Your task to perform on an android device: Open calendar and show me the fourth week of next month Image 0: 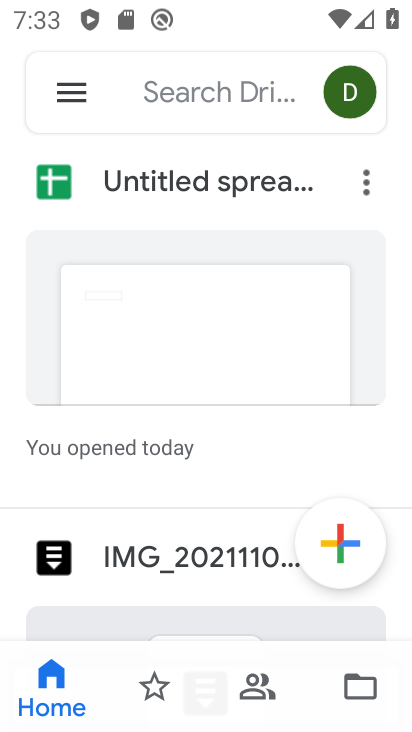
Step 0: press home button
Your task to perform on an android device: Open calendar and show me the fourth week of next month Image 1: 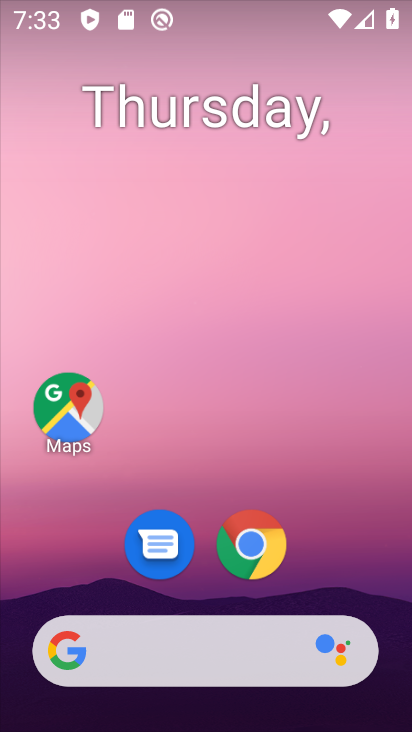
Step 1: drag from (340, 592) to (245, 160)
Your task to perform on an android device: Open calendar and show me the fourth week of next month Image 2: 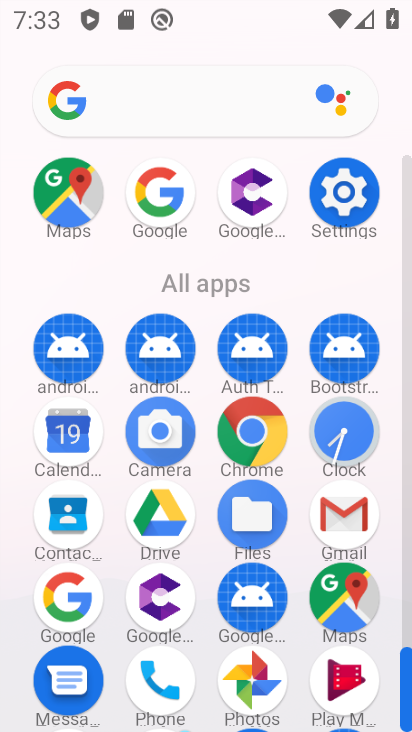
Step 2: click (66, 430)
Your task to perform on an android device: Open calendar and show me the fourth week of next month Image 3: 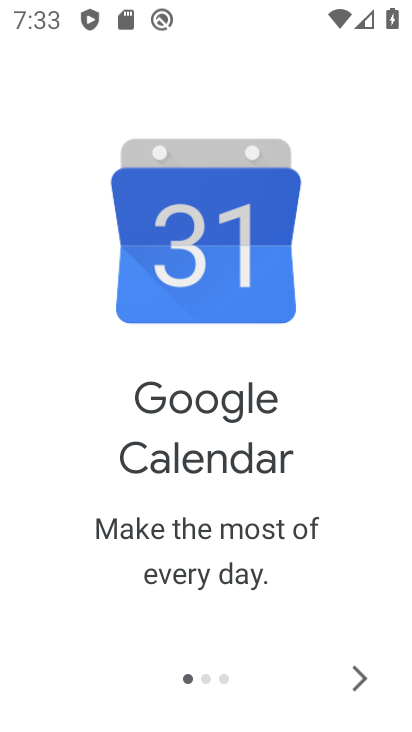
Step 3: click (366, 676)
Your task to perform on an android device: Open calendar and show me the fourth week of next month Image 4: 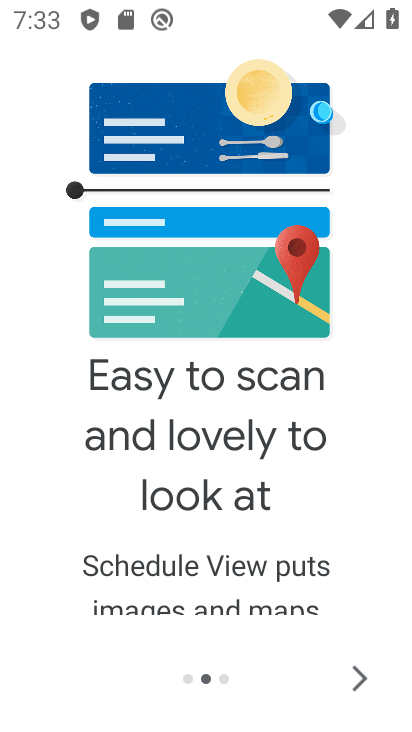
Step 4: click (366, 676)
Your task to perform on an android device: Open calendar and show me the fourth week of next month Image 5: 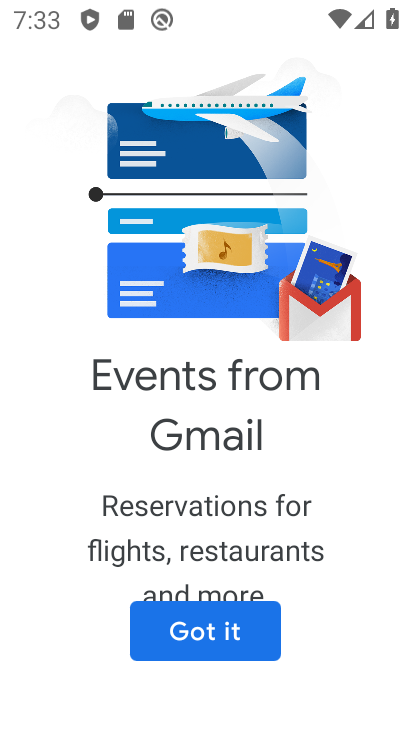
Step 5: click (229, 636)
Your task to perform on an android device: Open calendar and show me the fourth week of next month Image 6: 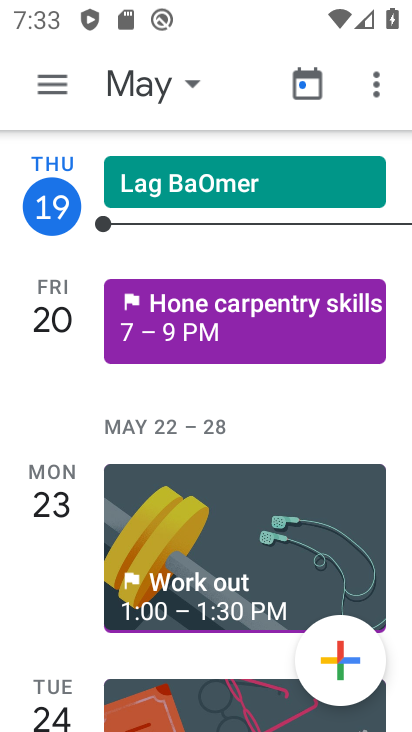
Step 6: click (188, 83)
Your task to perform on an android device: Open calendar and show me the fourth week of next month Image 7: 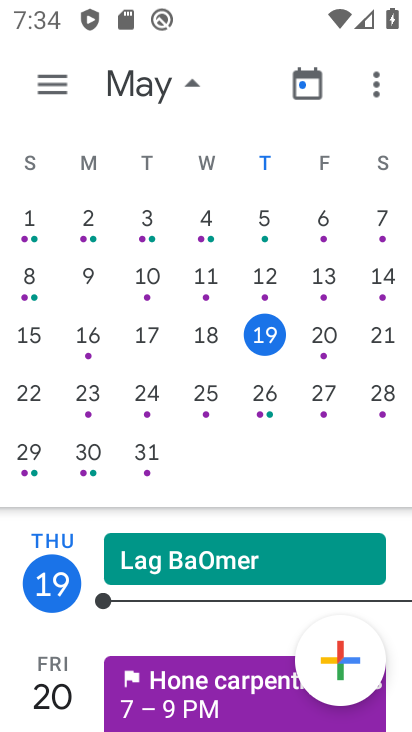
Step 7: drag from (366, 363) to (7, 314)
Your task to perform on an android device: Open calendar and show me the fourth week of next month Image 8: 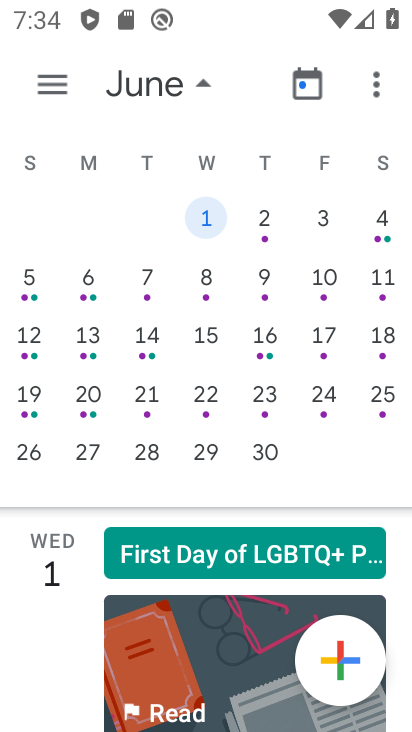
Step 8: click (86, 450)
Your task to perform on an android device: Open calendar and show me the fourth week of next month Image 9: 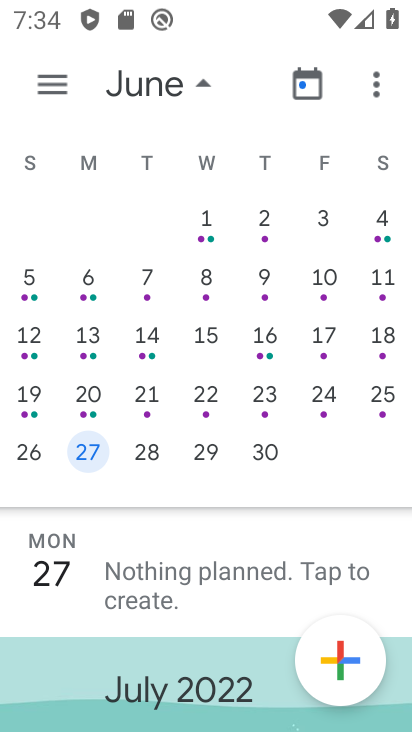
Step 9: click (54, 81)
Your task to perform on an android device: Open calendar and show me the fourth week of next month Image 10: 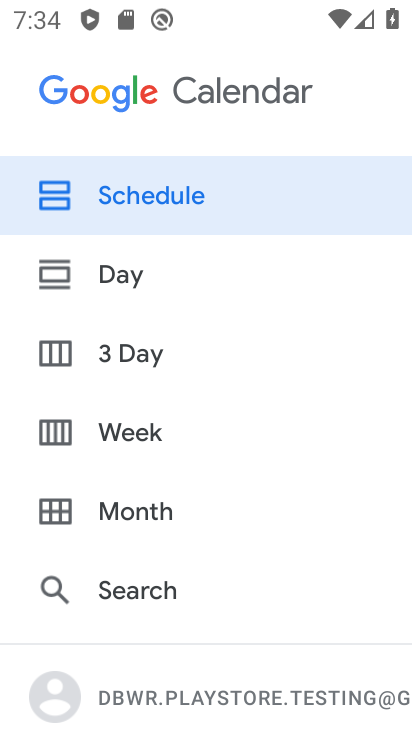
Step 10: click (116, 438)
Your task to perform on an android device: Open calendar and show me the fourth week of next month Image 11: 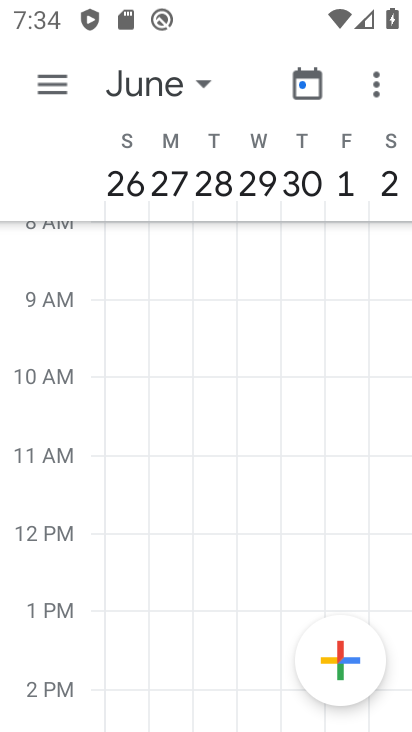
Step 11: task complete